Your task to perform on an android device: manage bookmarks in the chrome app Image 0: 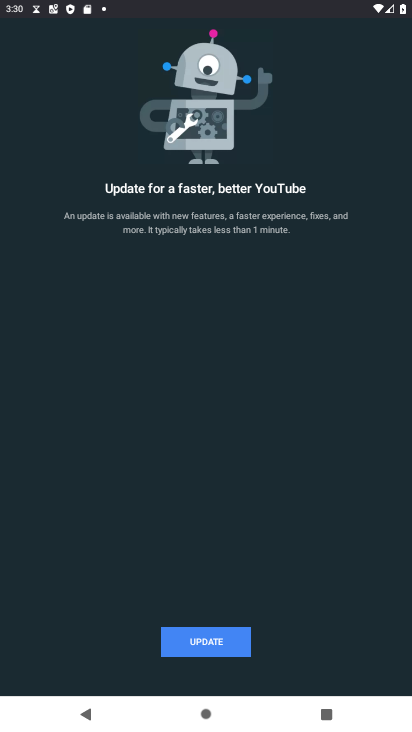
Step 0: press home button
Your task to perform on an android device: manage bookmarks in the chrome app Image 1: 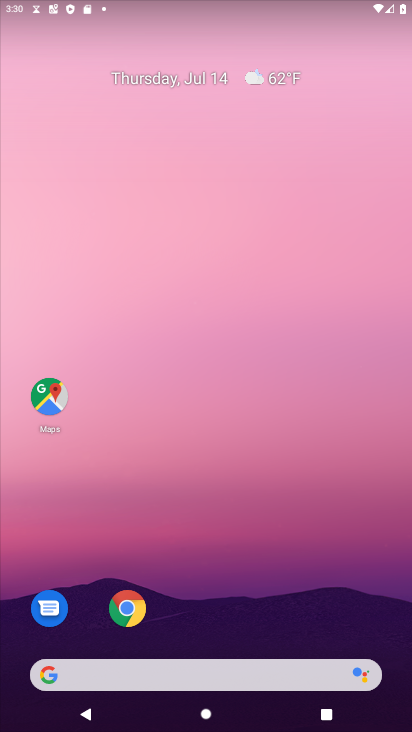
Step 1: click (128, 630)
Your task to perform on an android device: manage bookmarks in the chrome app Image 2: 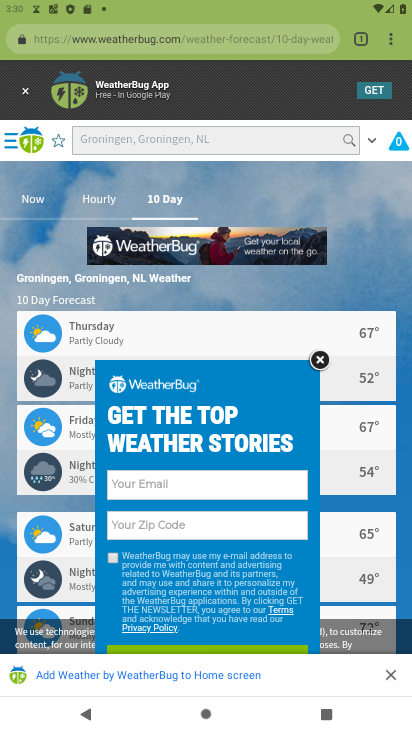
Step 2: task complete